Your task to perform on an android device: open device folders in google photos Image 0: 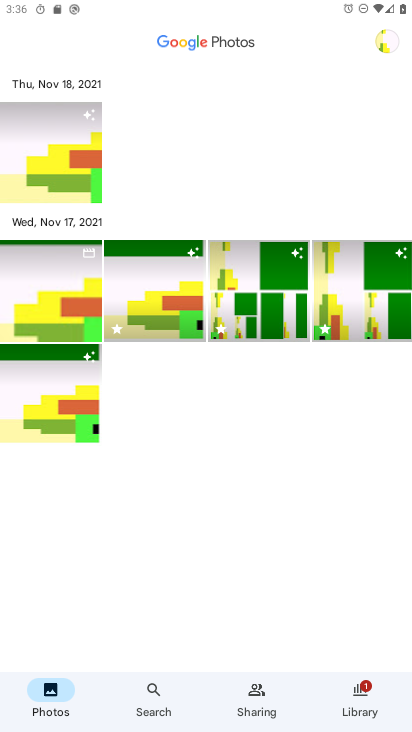
Step 0: task impossible